Your task to perform on an android device: turn off location Image 0: 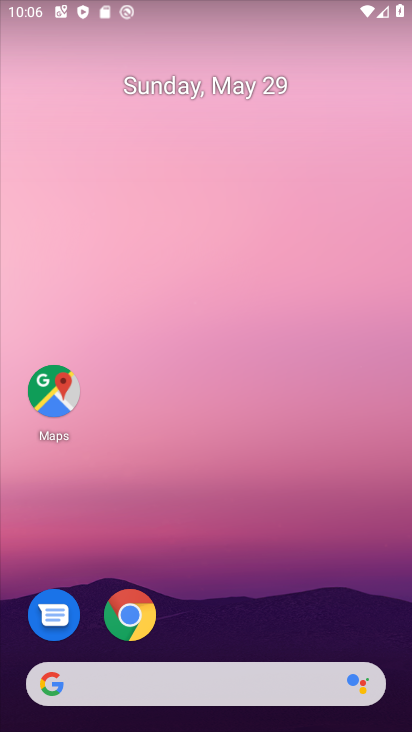
Step 0: drag from (215, 643) to (275, 9)
Your task to perform on an android device: turn off location Image 1: 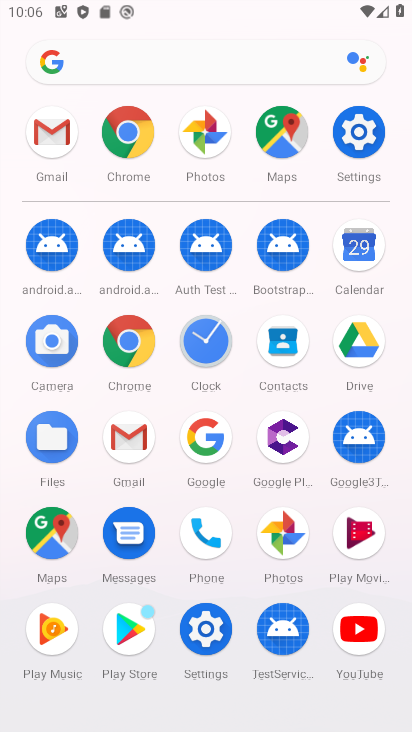
Step 1: click (209, 652)
Your task to perform on an android device: turn off location Image 2: 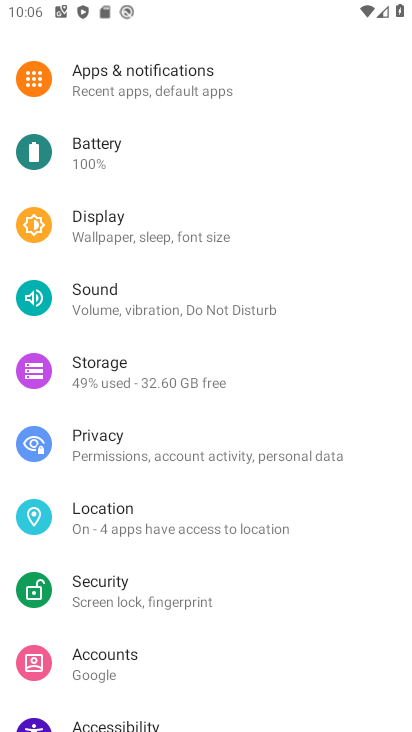
Step 2: click (122, 517)
Your task to perform on an android device: turn off location Image 3: 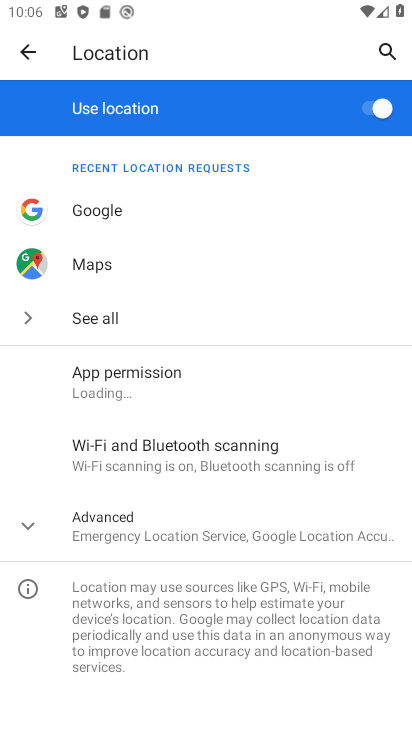
Step 3: click (366, 116)
Your task to perform on an android device: turn off location Image 4: 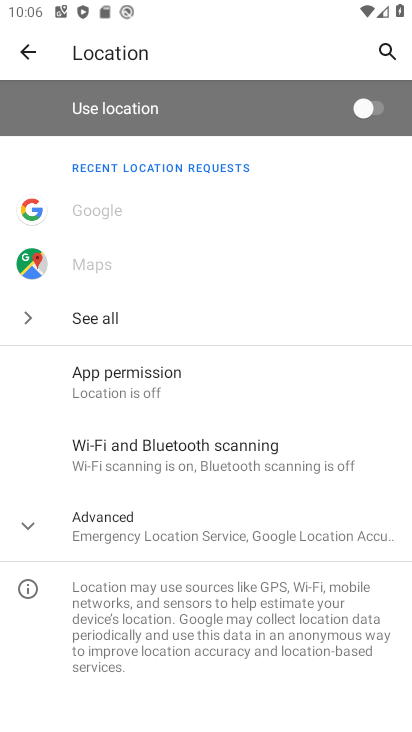
Step 4: task complete